Your task to perform on an android device: Show me popular games on the Play Store Image 0: 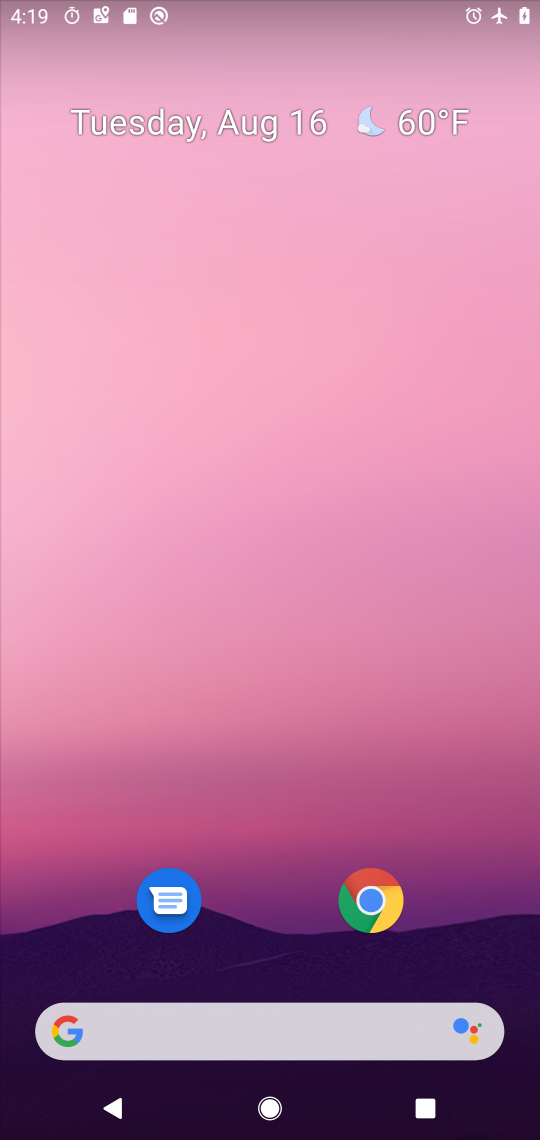
Step 0: drag from (280, 984) to (272, 339)
Your task to perform on an android device: Show me popular games on the Play Store Image 1: 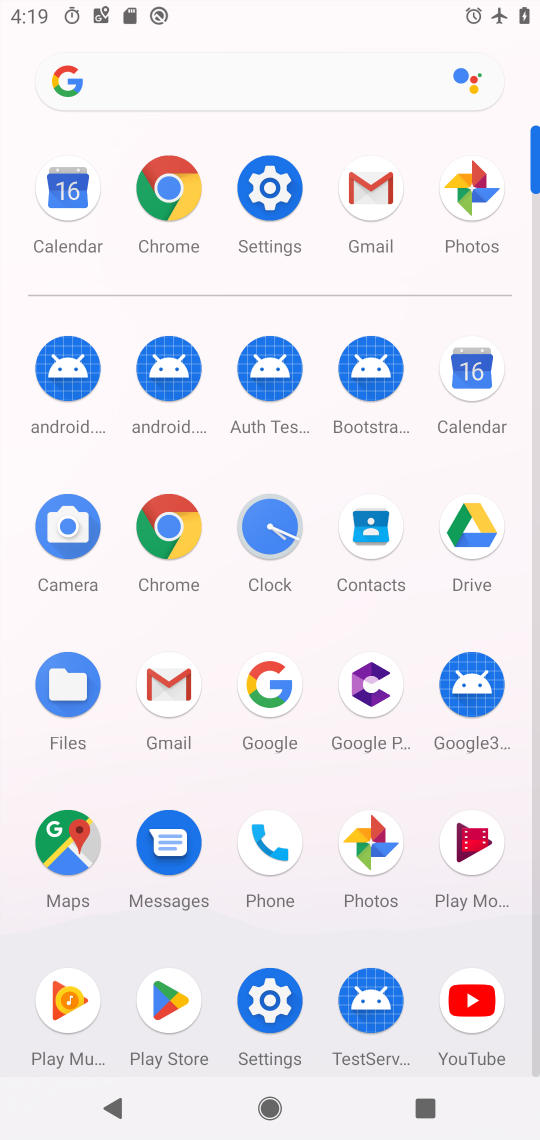
Step 1: click (173, 996)
Your task to perform on an android device: Show me popular games on the Play Store Image 2: 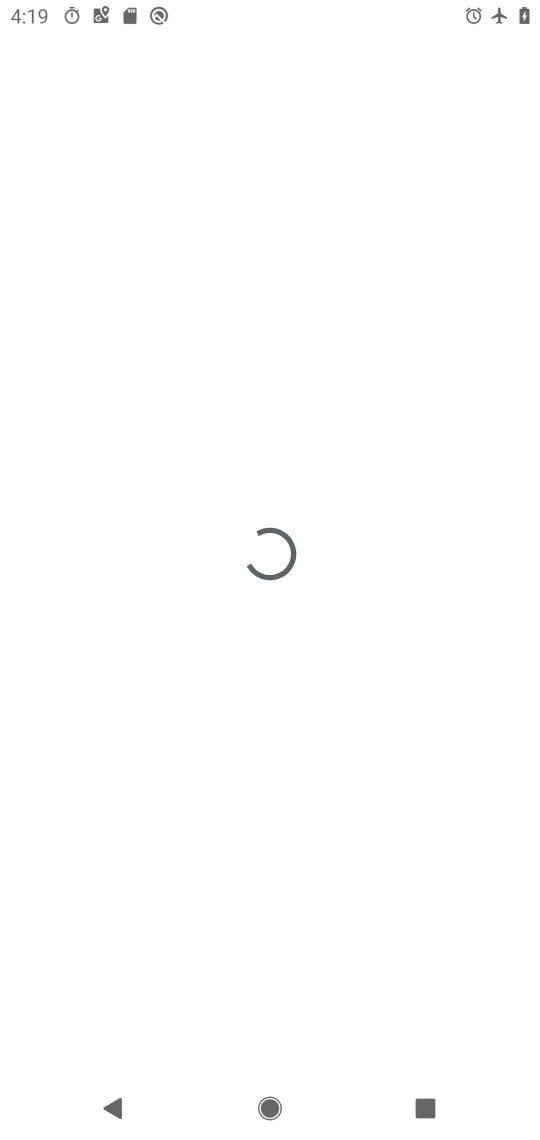
Step 2: press home button
Your task to perform on an android device: Show me popular games on the Play Store Image 3: 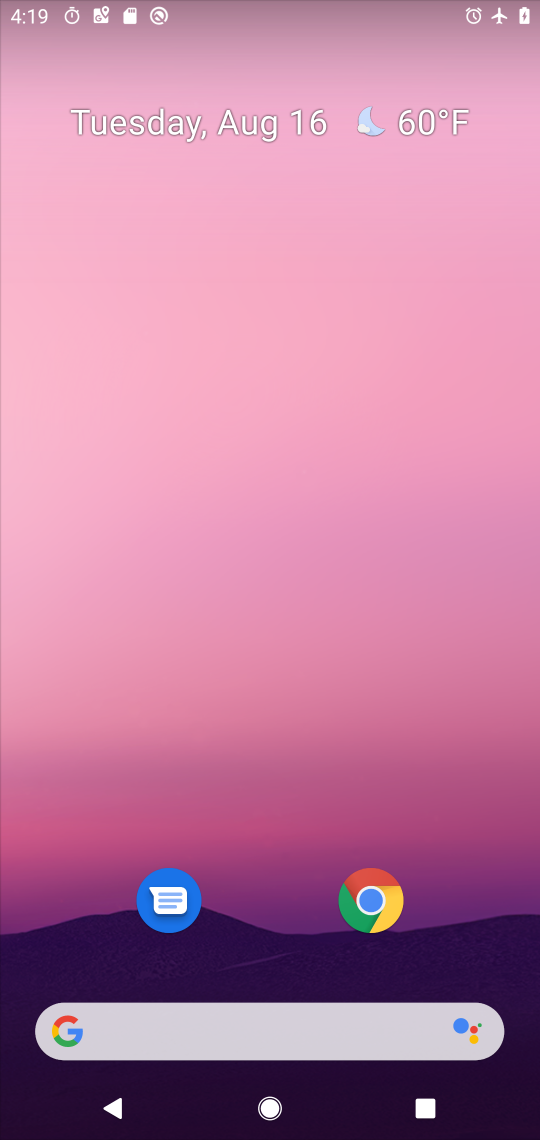
Step 3: drag from (284, 878) to (235, 86)
Your task to perform on an android device: Show me popular games on the Play Store Image 4: 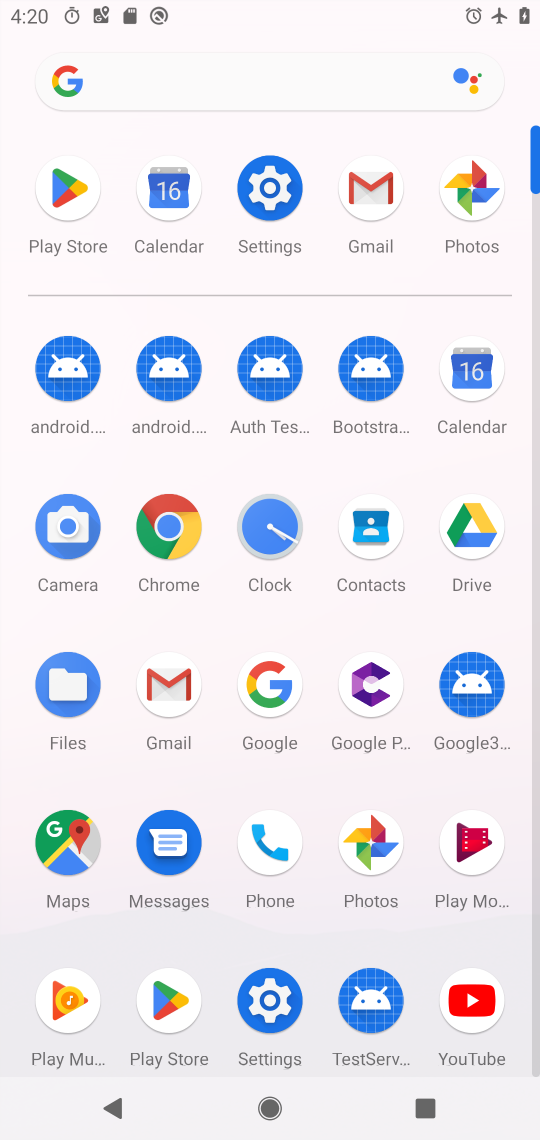
Step 4: click (172, 985)
Your task to perform on an android device: Show me popular games on the Play Store Image 5: 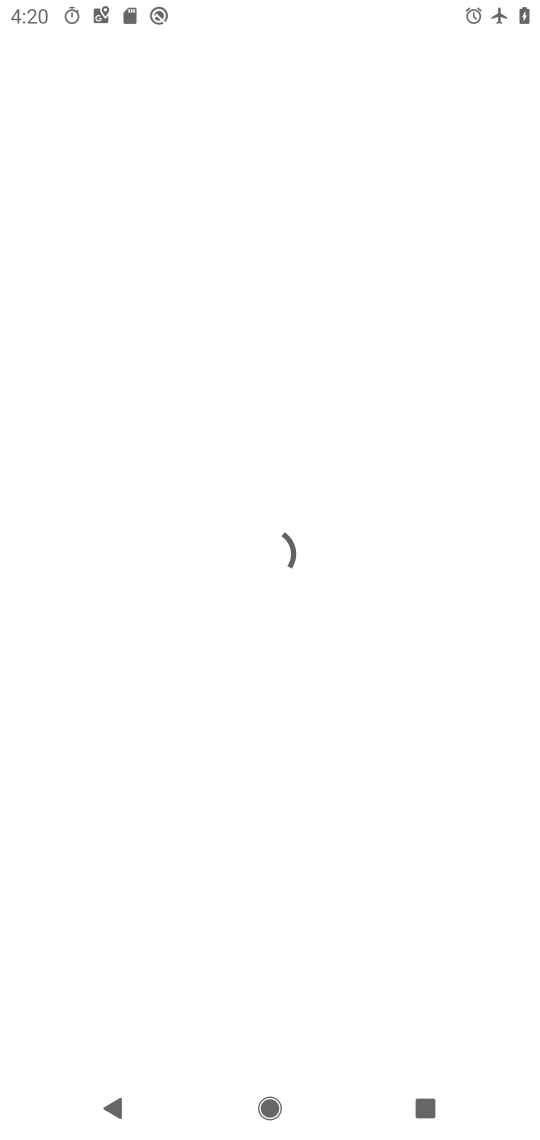
Step 5: task complete